Your task to perform on an android device: clear history in the chrome app Image 0: 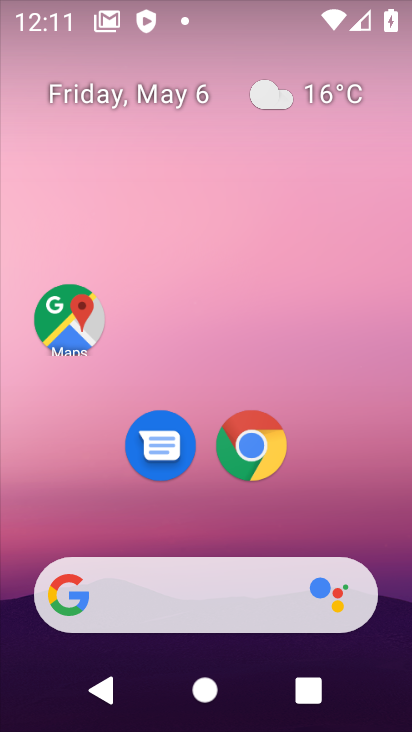
Step 0: drag from (371, 521) to (202, 39)
Your task to perform on an android device: clear history in the chrome app Image 1: 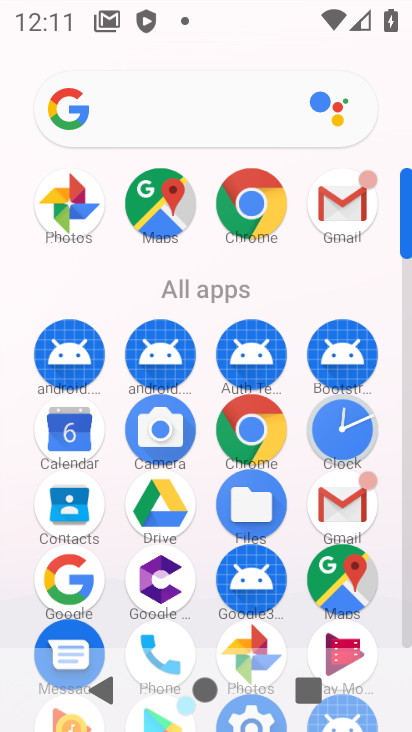
Step 1: click (259, 217)
Your task to perform on an android device: clear history in the chrome app Image 2: 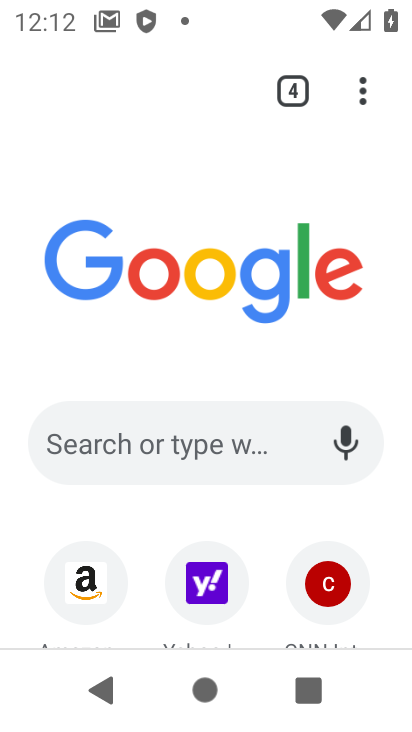
Step 2: click (361, 95)
Your task to perform on an android device: clear history in the chrome app Image 3: 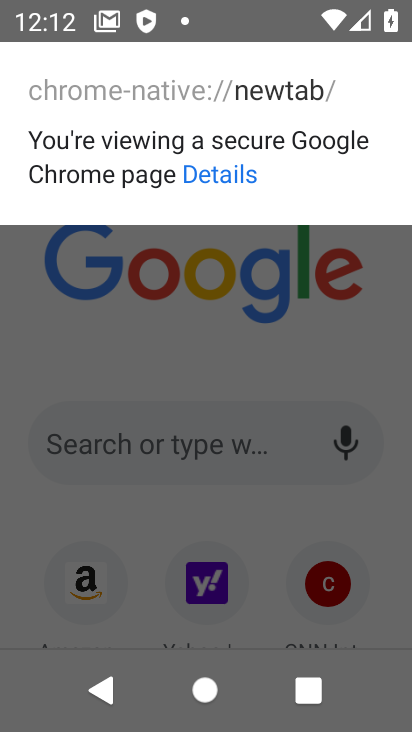
Step 3: click (321, 332)
Your task to perform on an android device: clear history in the chrome app Image 4: 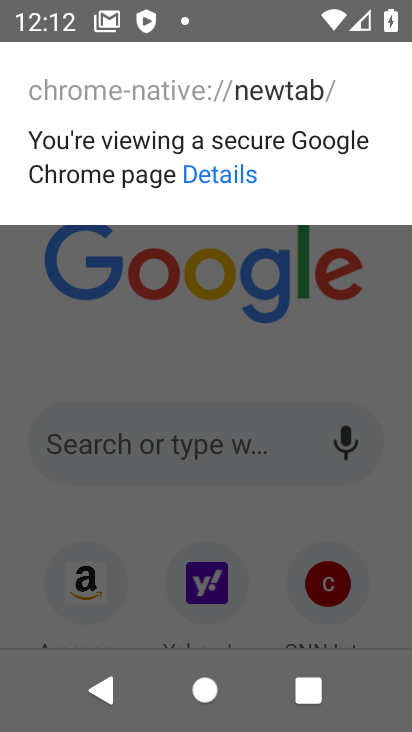
Step 4: click (321, 332)
Your task to perform on an android device: clear history in the chrome app Image 5: 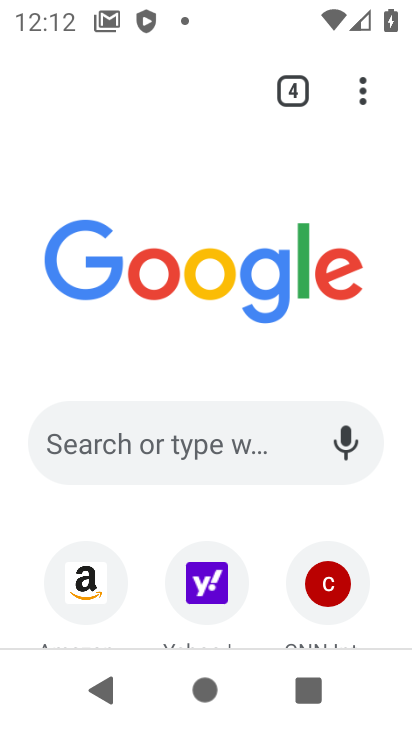
Step 5: click (366, 84)
Your task to perform on an android device: clear history in the chrome app Image 6: 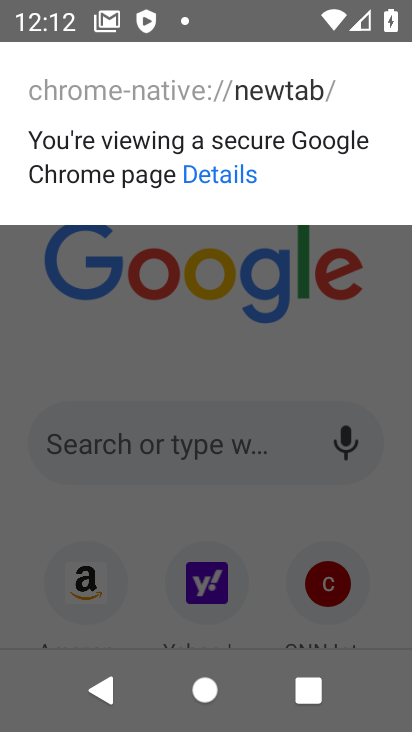
Step 6: click (318, 295)
Your task to perform on an android device: clear history in the chrome app Image 7: 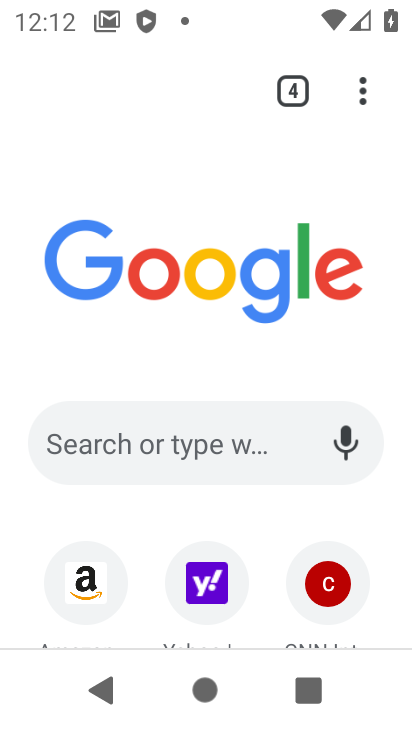
Step 7: drag from (355, 90) to (85, 222)
Your task to perform on an android device: clear history in the chrome app Image 8: 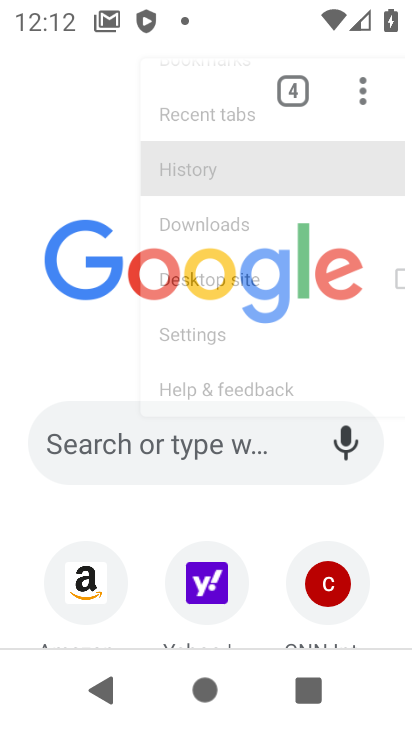
Step 8: click (85, 221)
Your task to perform on an android device: clear history in the chrome app Image 9: 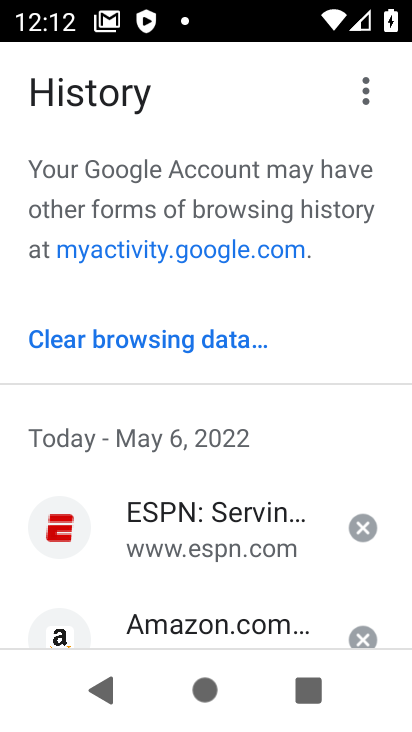
Step 9: click (362, 522)
Your task to perform on an android device: clear history in the chrome app Image 10: 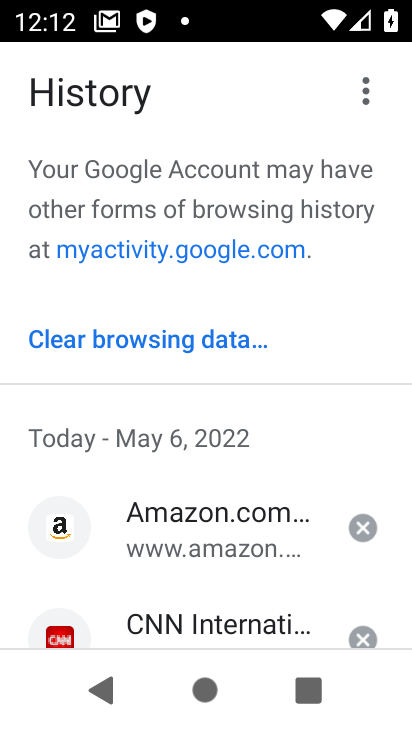
Step 10: click (364, 527)
Your task to perform on an android device: clear history in the chrome app Image 11: 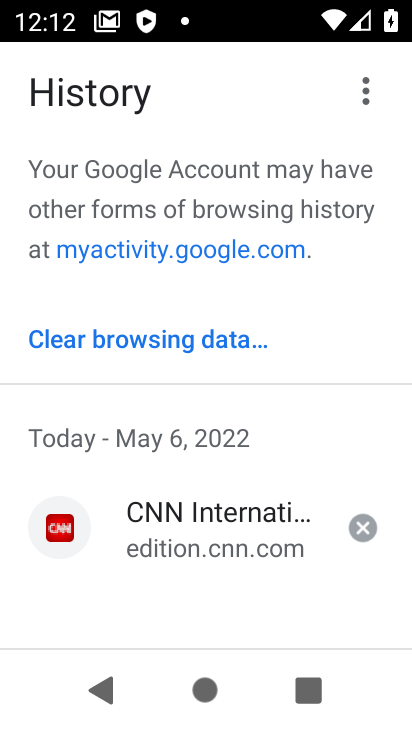
Step 11: task complete